Your task to perform on an android device: Check the news Image 0: 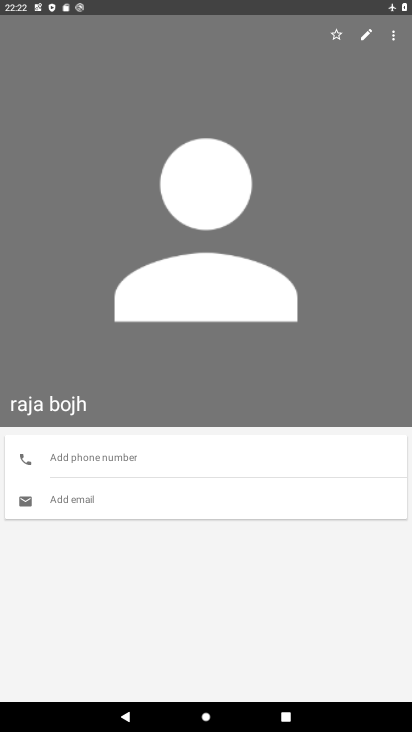
Step 0: press home button
Your task to perform on an android device: Check the news Image 1: 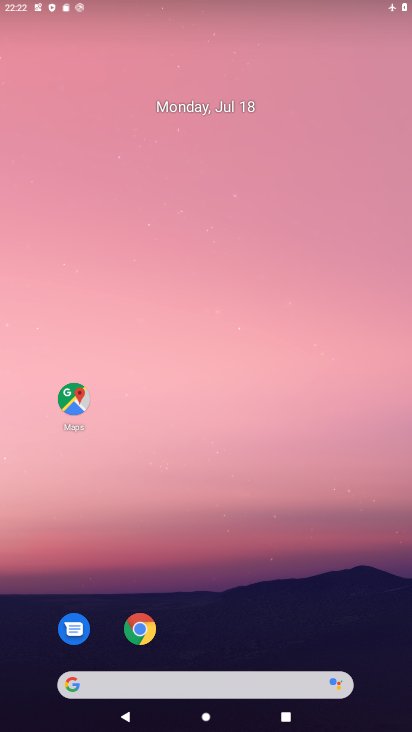
Step 1: drag from (325, 608) to (259, 68)
Your task to perform on an android device: Check the news Image 2: 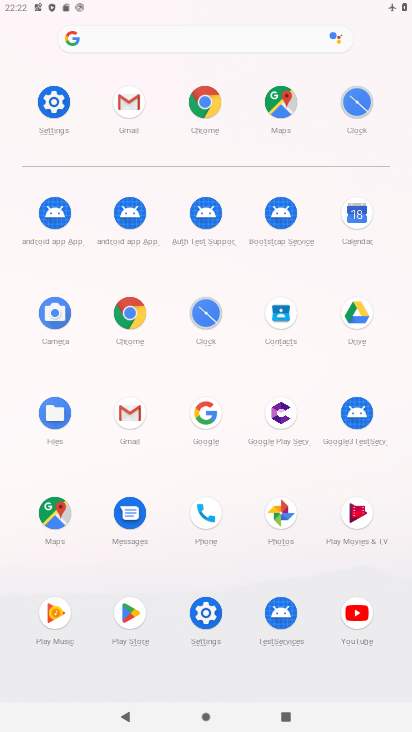
Step 2: click (207, 103)
Your task to perform on an android device: Check the news Image 3: 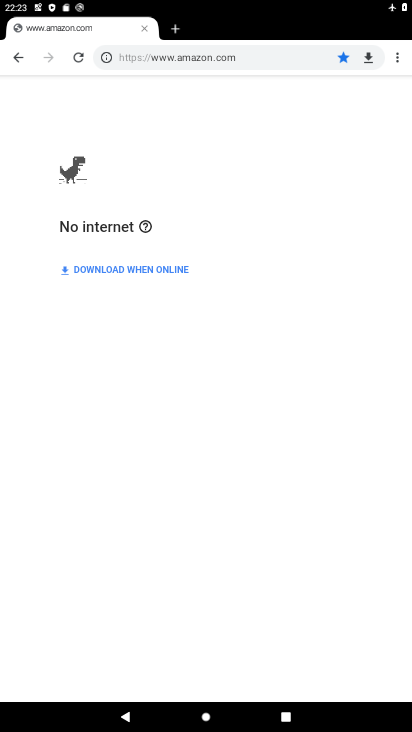
Step 3: click (215, 60)
Your task to perform on an android device: Check the news Image 4: 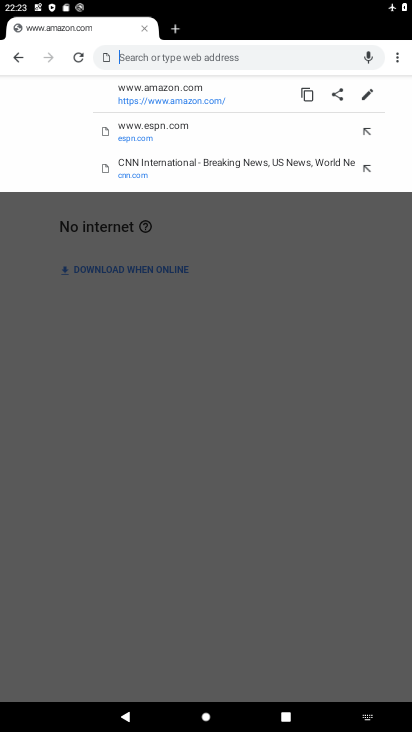
Step 4: type "news"
Your task to perform on an android device: Check the news Image 5: 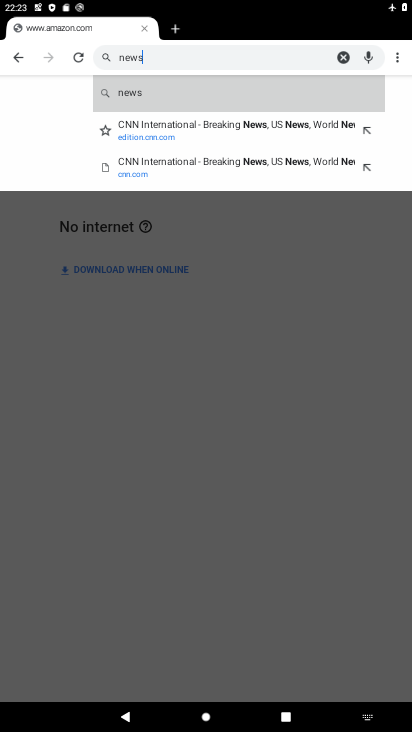
Step 5: type ""
Your task to perform on an android device: Check the news Image 6: 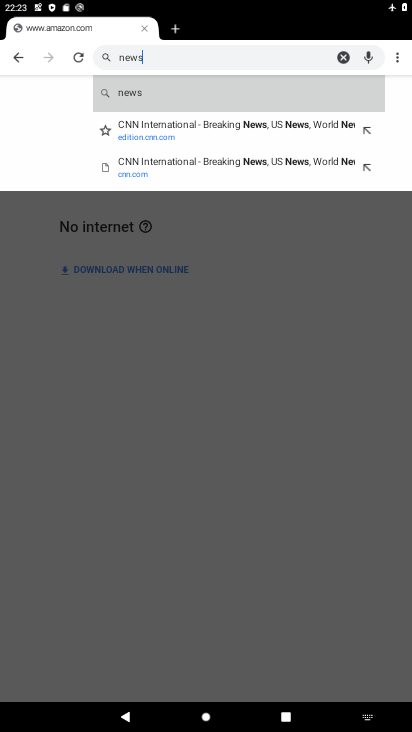
Step 6: click (151, 100)
Your task to perform on an android device: Check the news Image 7: 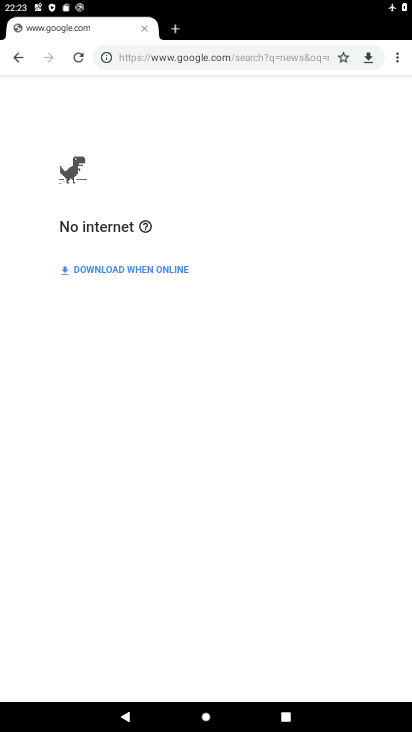
Step 7: task complete